Your task to perform on an android device: Open location settings Image 0: 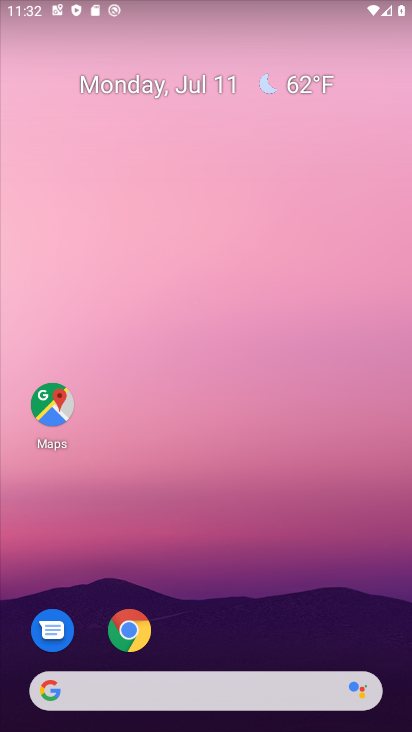
Step 0: drag from (294, 670) to (328, 3)
Your task to perform on an android device: Open location settings Image 1: 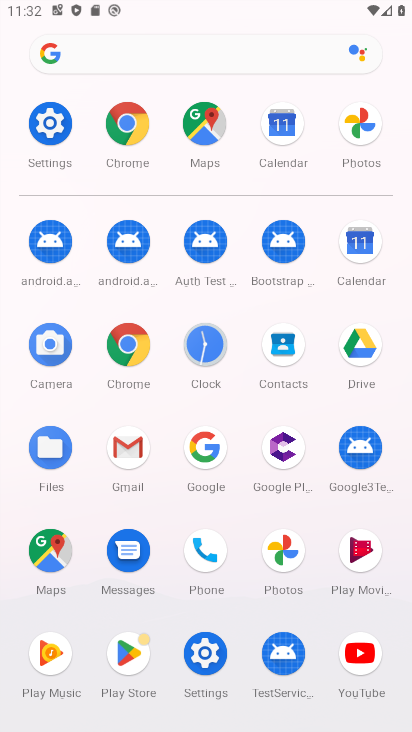
Step 1: click (39, 128)
Your task to perform on an android device: Open location settings Image 2: 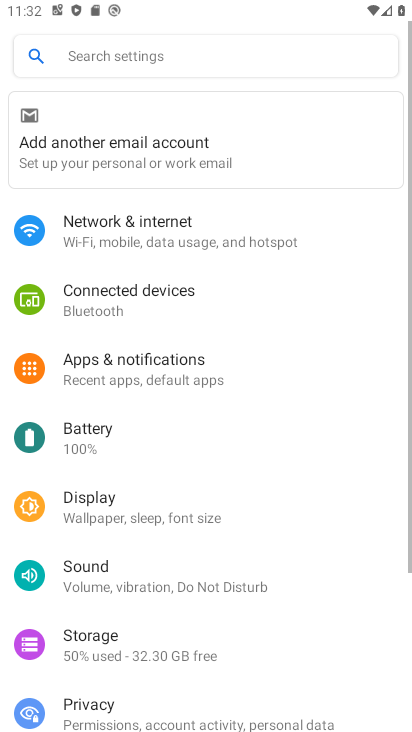
Step 2: click (42, 128)
Your task to perform on an android device: Open location settings Image 3: 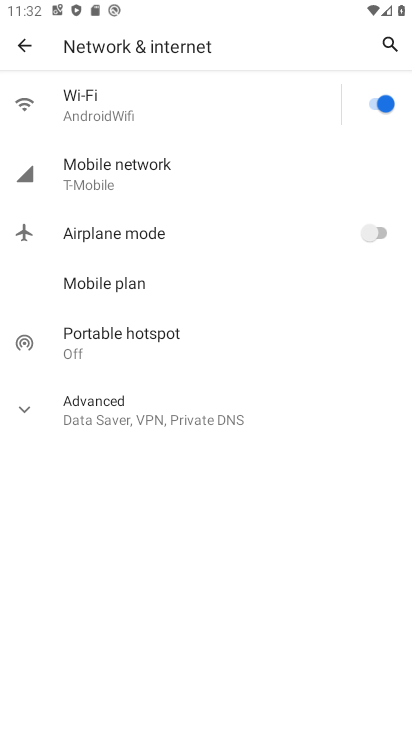
Step 3: press back button
Your task to perform on an android device: Open location settings Image 4: 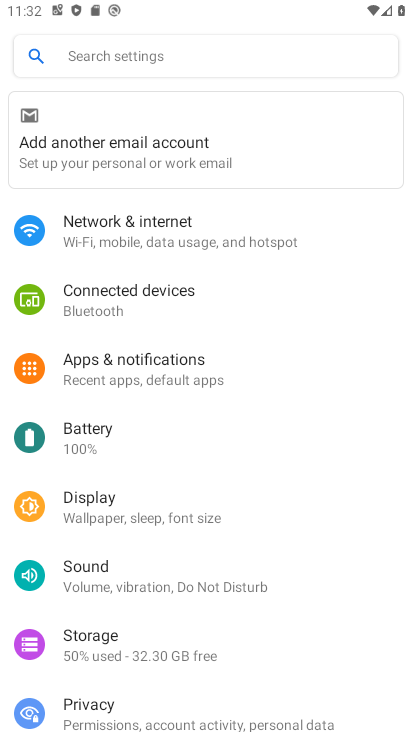
Step 4: drag from (142, 684) to (191, 239)
Your task to perform on an android device: Open location settings Image 5: 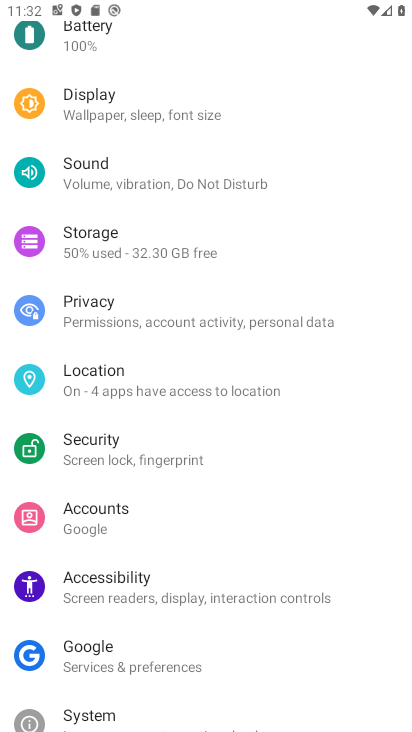
Step 5: click (137, 388)
Your task to perform on an android device: Open location settings Image 6: 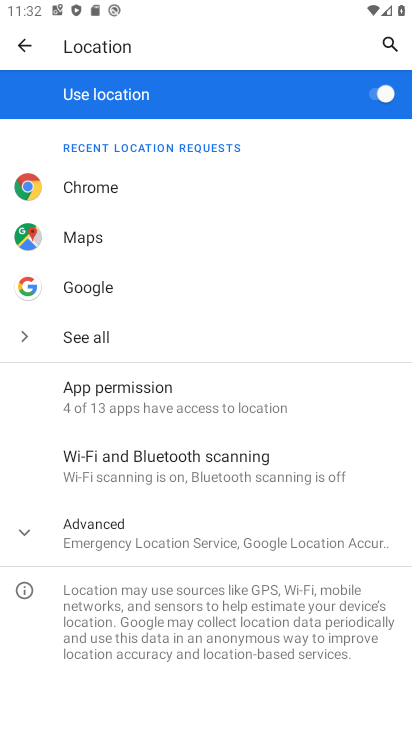
Step 6: task complete